Your task to perform on an android device: toggle wifi Image 0: 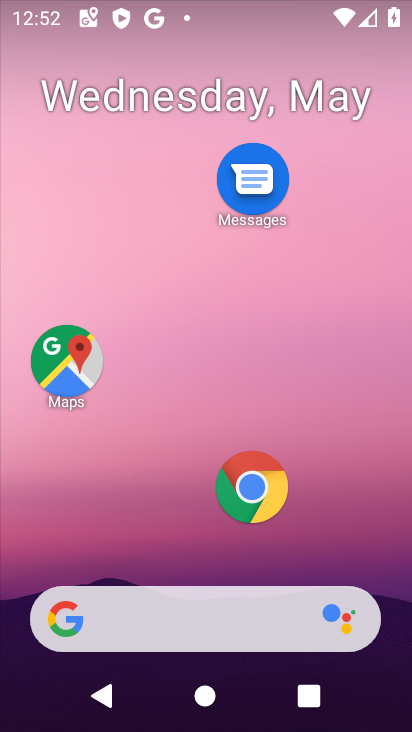
Step 0: drag from (162, 532) to (187, 143)
Your task to perform on an android device: toggle wifi Image 1: 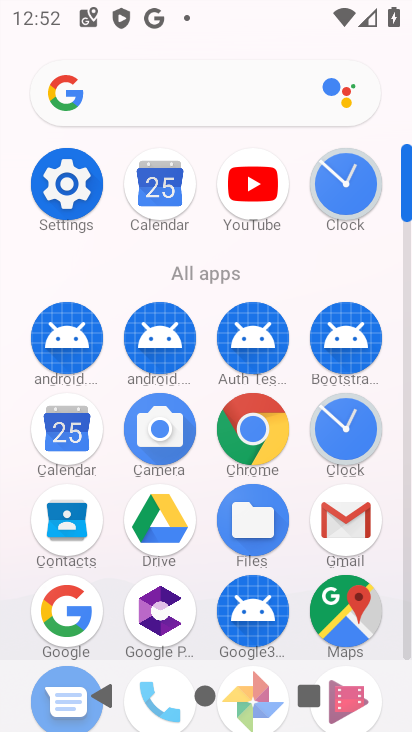
Step 1: click (76, 199)
Your task to perform on an android device: toggle wifi Image 2: 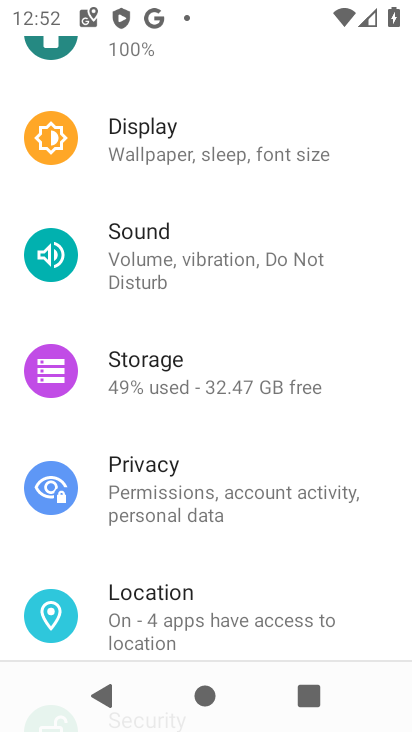
Step 2: drag from (213, 189) to (262, 485)
Your task to perform on an android device: toggle wifi Image 3: 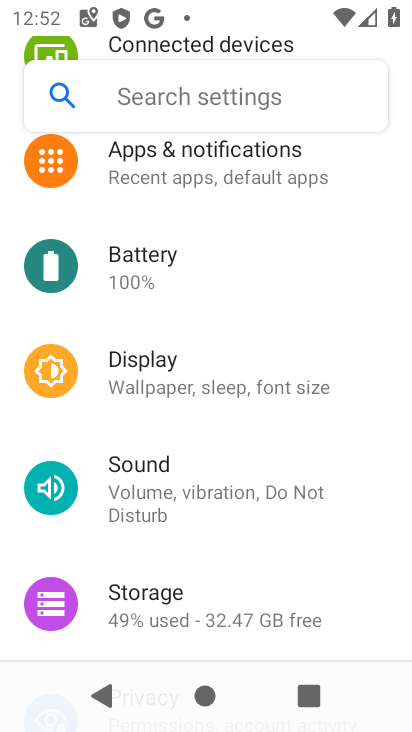
Step 3: drag from (221, 265) to (226, 640)
Your task to perform on an android device: toggle wifi Image 4: 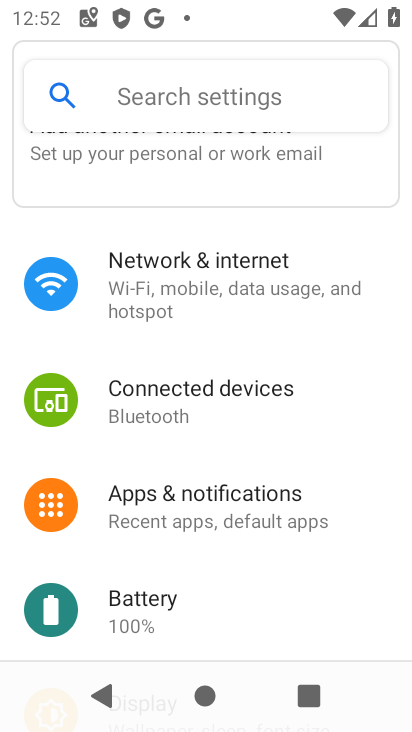
Step 4: click (221, 283)
Your task to perform on an android device: toggle wifi Image 5: 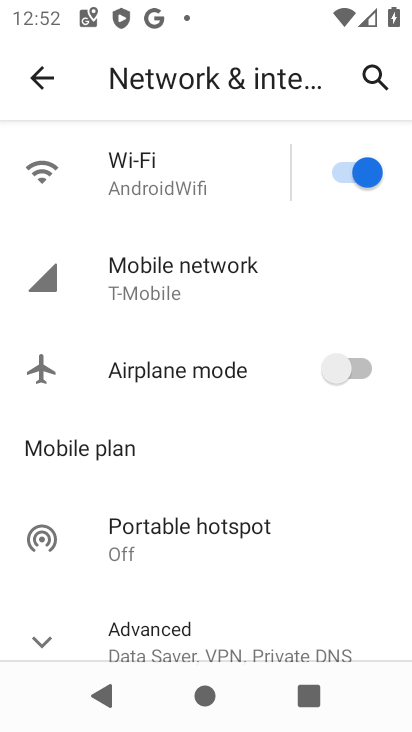
Step 5: click (330, 169)
Your task to perform on an android device: toggle wifi Image 6: 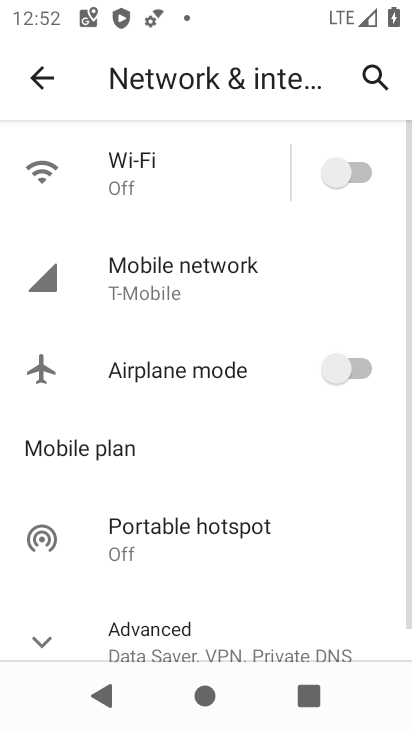
Step 6: task complete